Your task to perform on an android device: Go to eBay Image 0: 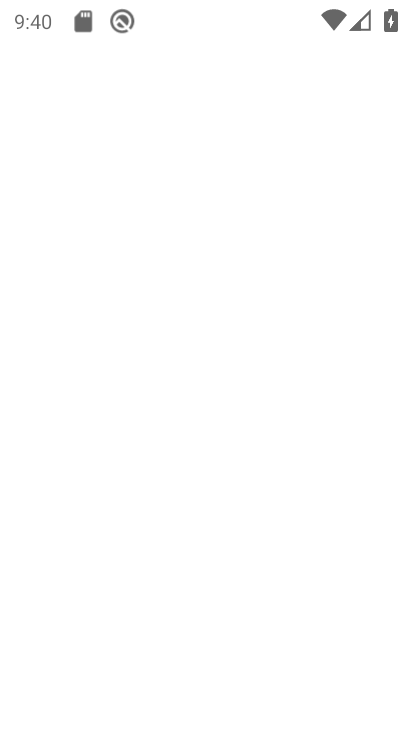
Step 0: click (300, 447)
Your task to perform on an android device: Go to eBay Image 1: 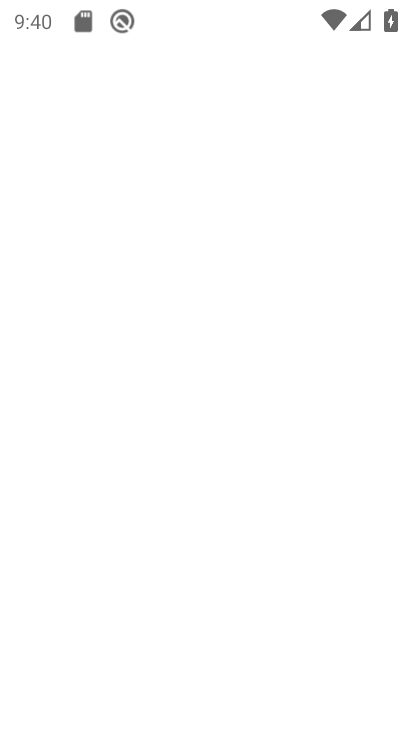
Step 1: drag from (0, 0) to (300, 447)
Your task to perform on an android device: Go to eBay Image 2: 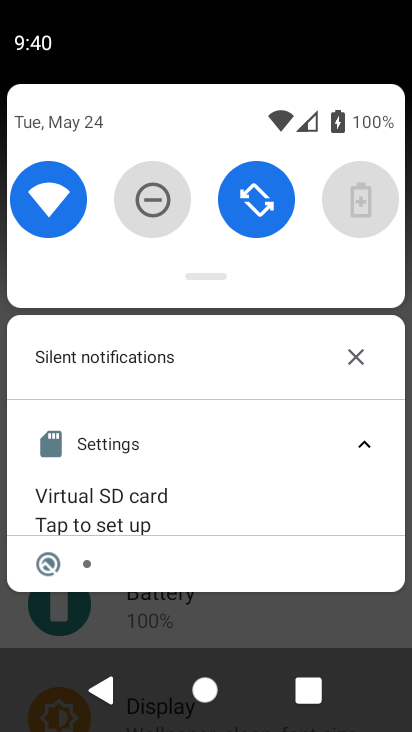
Step 2: press home button
Your task to perform on an android device: Go to eBay Image 3: 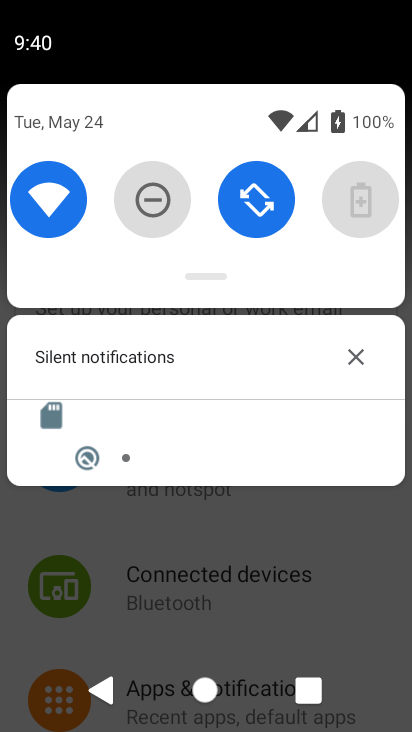
Step 3: press home button
Your task to perform on an android device: Go to eBay Image 4: 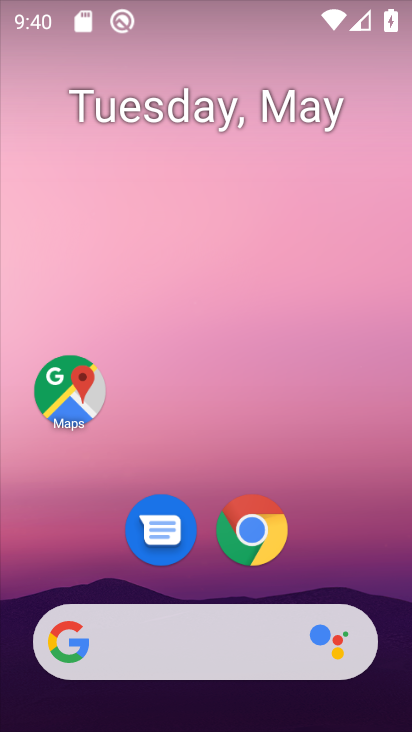
Step 4: press home button
Your task to perform on an android device: Go to eBay Image 5: 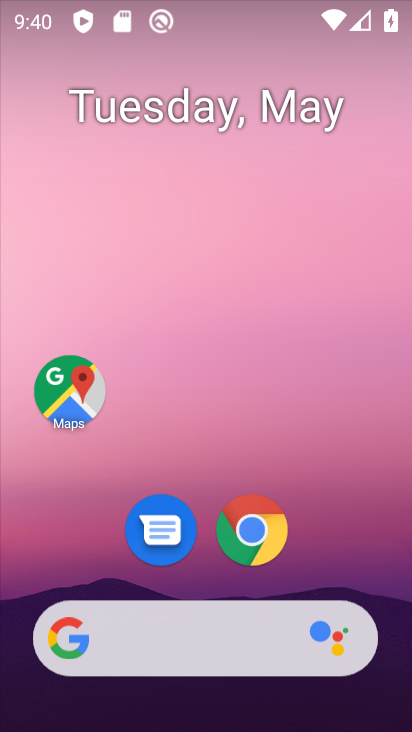
Step 5: drag from (221, 570) to (331, 17)
Your task to perform on an android device: Go to eBay Image 6: 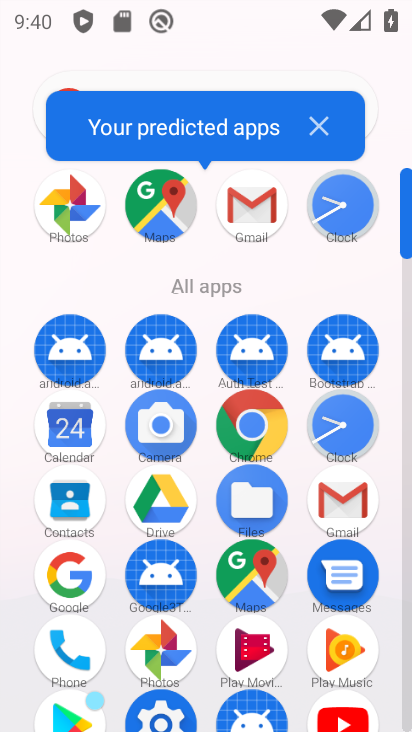
Step 6: click (201, 104)
Your task to perform on an android device: Go to eBay Image 7: 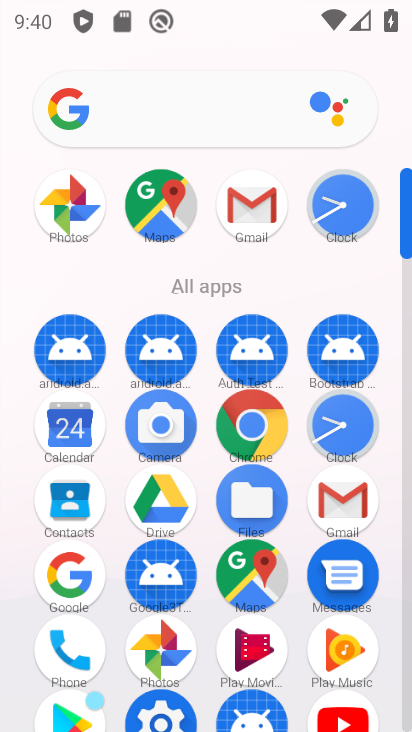
Step 7: click (168, 101)
Your task to perform on an android device: Go to eBay Image 8: 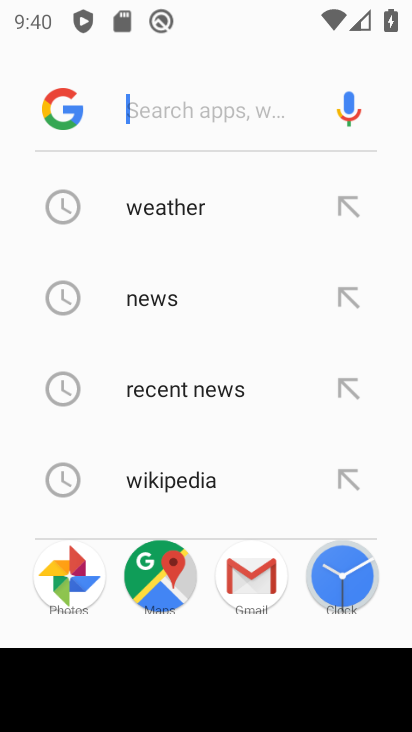
Step 8: type "ebay"
Your task to perform on an android device: Go to eBay Image 9: 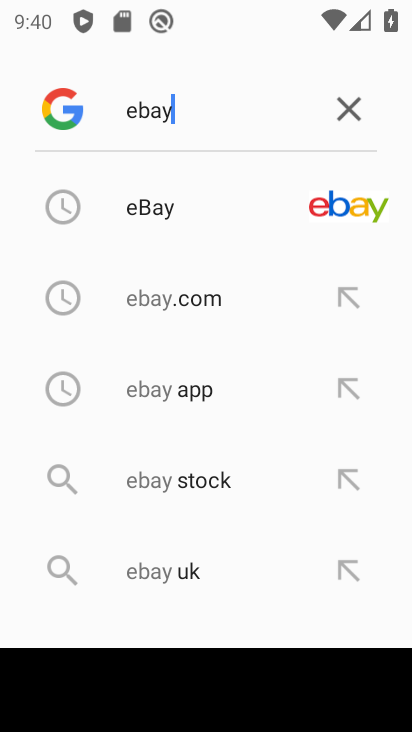
Step 9: click (207, 206)
Your task to perform on an android device: Go to eBay Image 10: 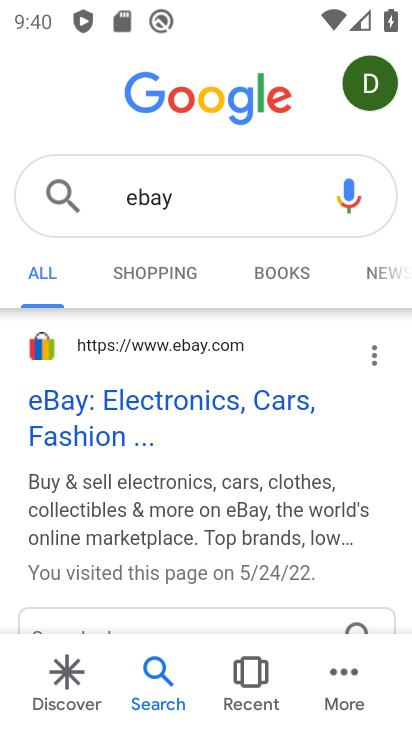
Step 10: drag from (162, 431) to (204, 196)
Your task to perform on an android device: Go to eBay Image 11: 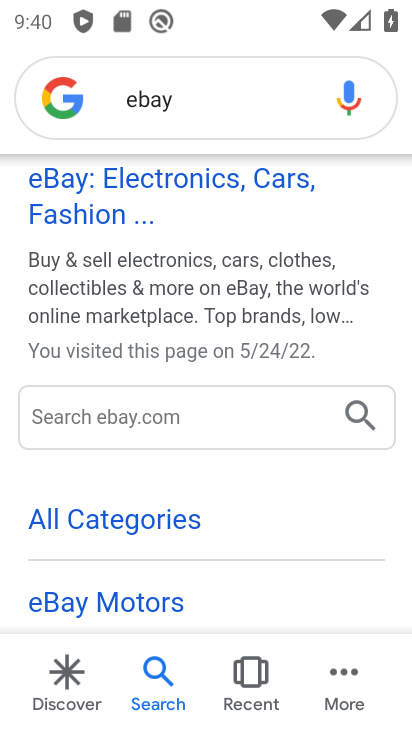
Step 11: drag from (239, 200) to (243, 419)
Your task to perform on an android device: Go to eBay Image 12: 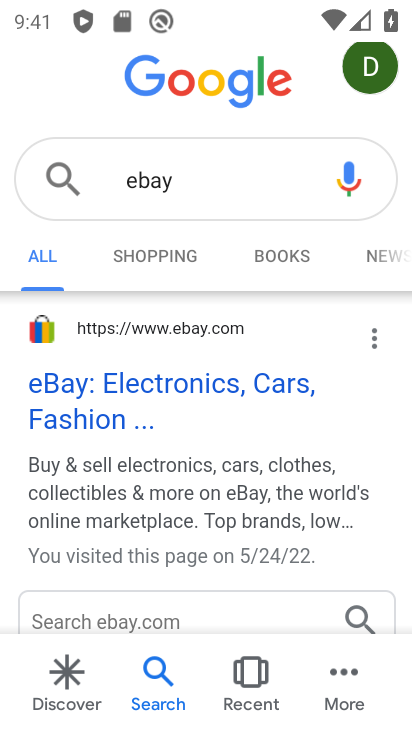
Step 12: drag from (177, 437) to (227, 177)
Your task to perform on an android device: Go to eBay Image 13: 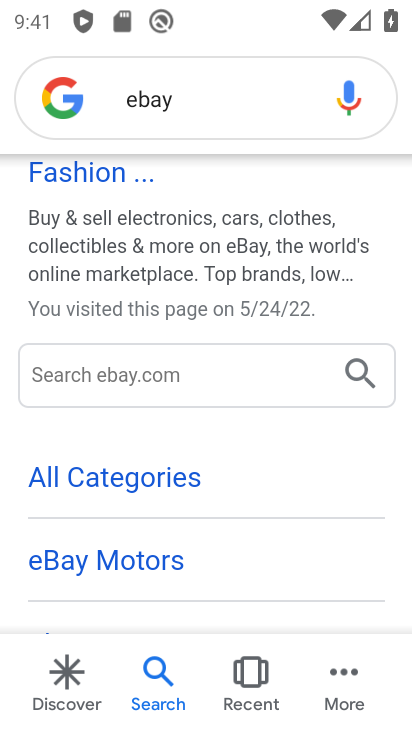
Step 13: drag from (222, 234) to (240, 501)
Your task to perform on an android device: Go to eBay Image 14: 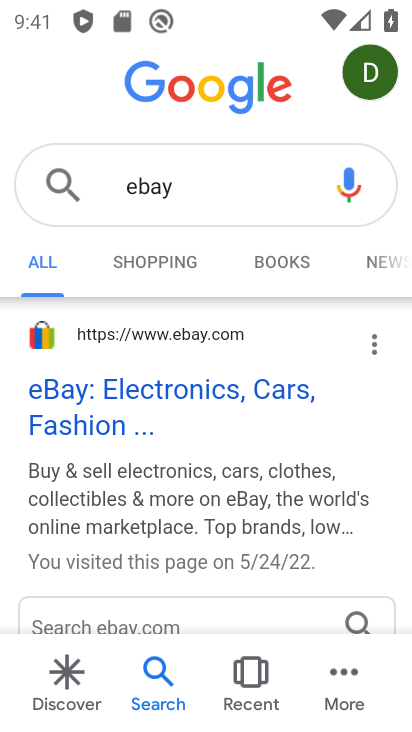
Step 14: drag from (237, 520) to (283, 237)
Your task to perform on an android device: Go to eBay Image 15: 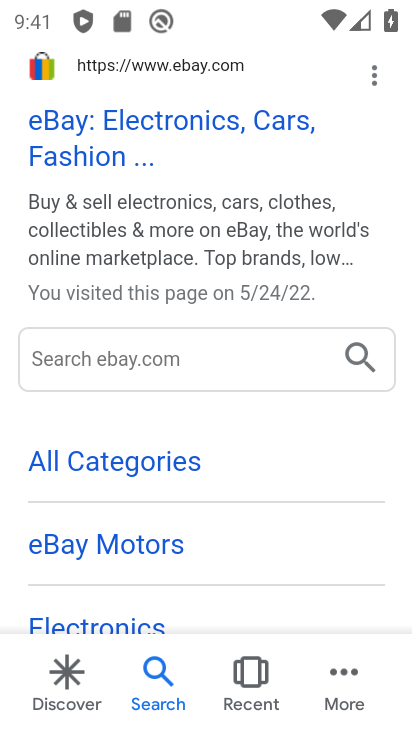
Step 15: drag from (244, 348) to (248, 612)
Your task to perform on an android device: Go to eBay Image 16: 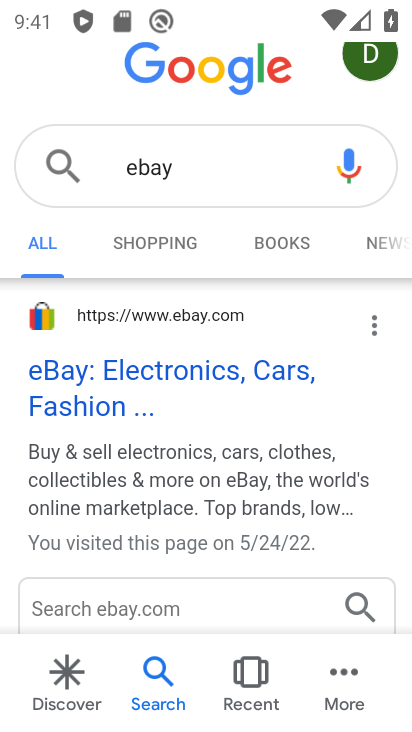
Step 16: click (114, 380)
Your task to perform on an android device: Go to eBay Image 17: 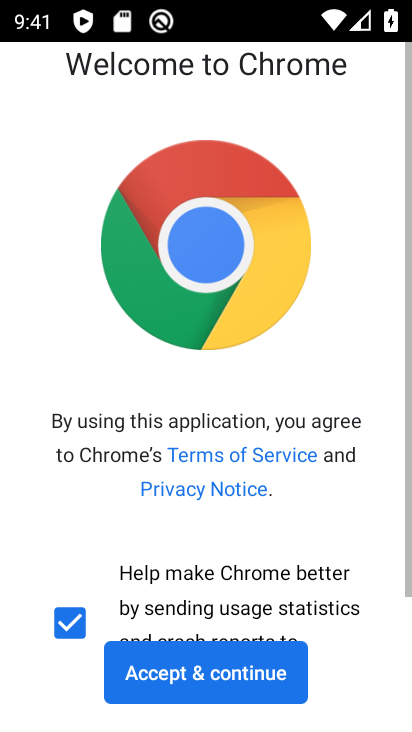
Step 17: drag from (250, 596) to (295, 352)
Your task to perform on an android device: Go to eBay Image 18: 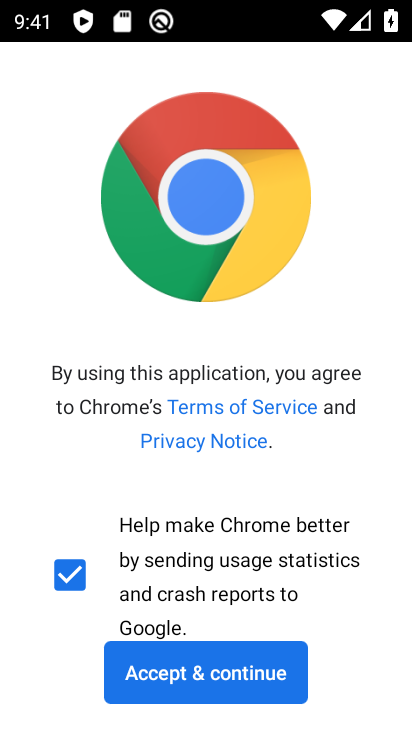
Step 18: drag from (185, 602) to (223, 197)
Your task to perform on an android device: Go to eBay Image 19: 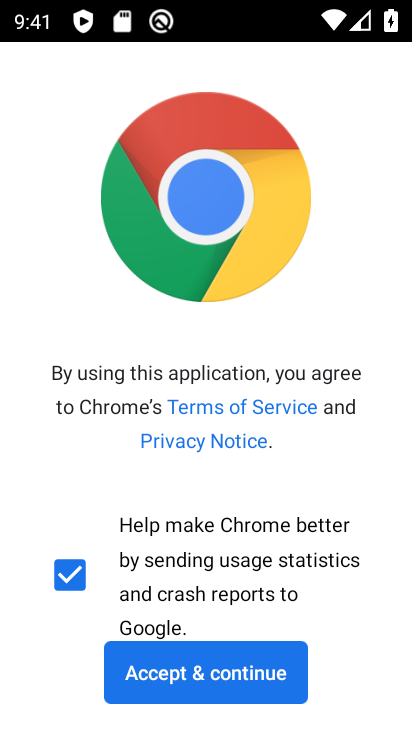
Step 19: click (231, 659)
Your task to perform on an android device: Go to eBay Image 20: 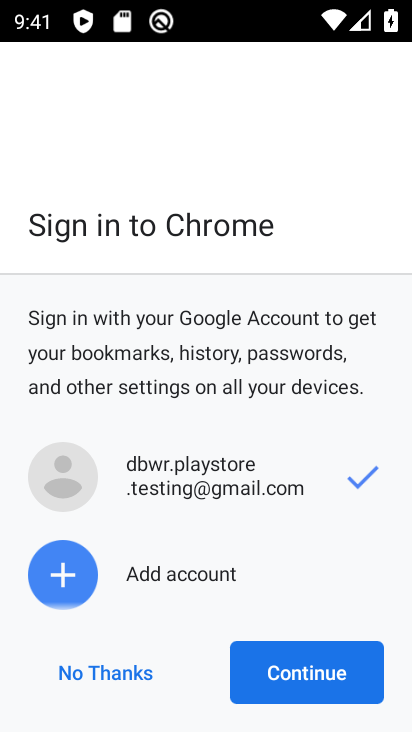
Step 20: click (270, 677)
Your task to perform on an android device: Go to eBay Image 21: 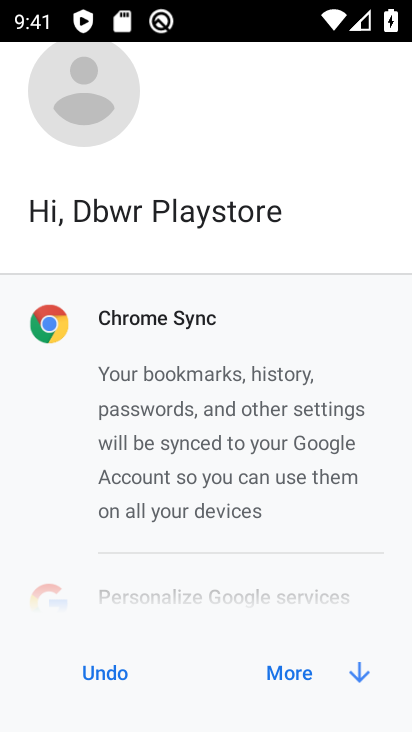
Step 21: click (278, 677)
Your task to perform on an android device: Go to eBay Image 22: 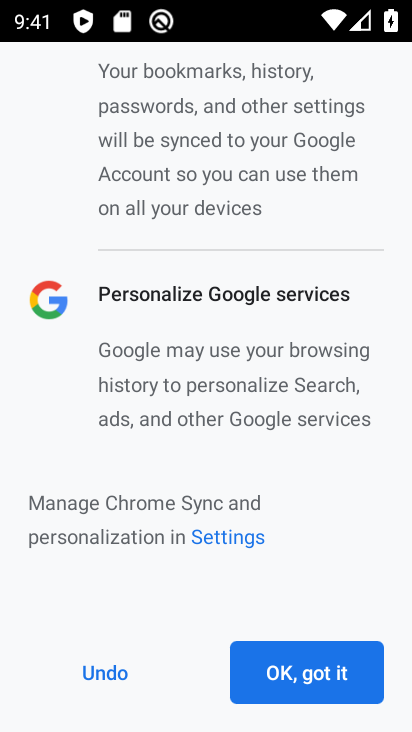
Step 22: click (281, 700)
Your task to perform on an android device: Go to eBay Image 23: 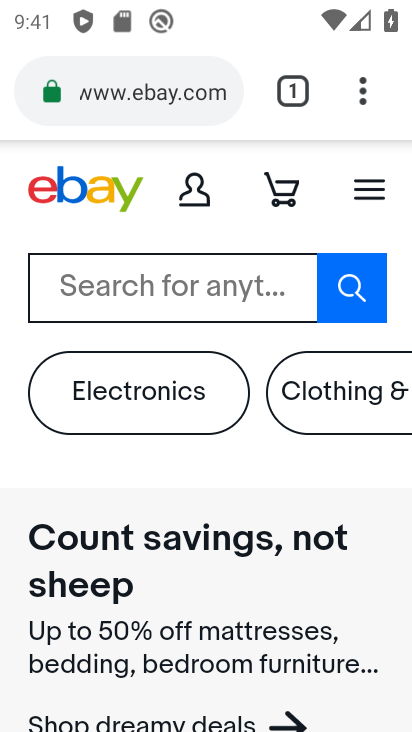
Step 23: task complete